Your task to perform on an android device: turn on sleep mode Image 0: 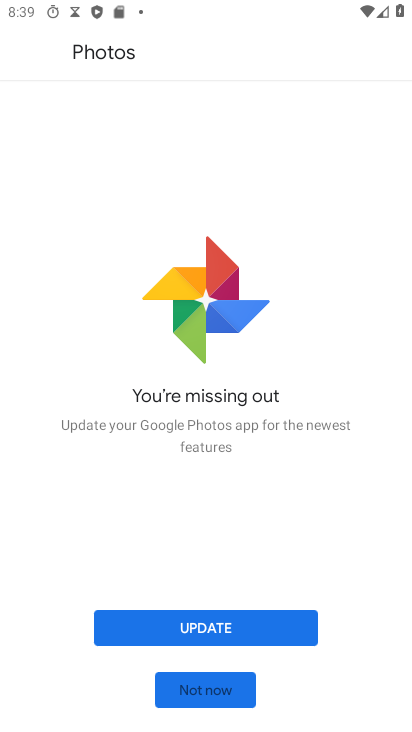
Step 0: press home button
Your task to perform on an android device: turn on sleep mode Image 1: 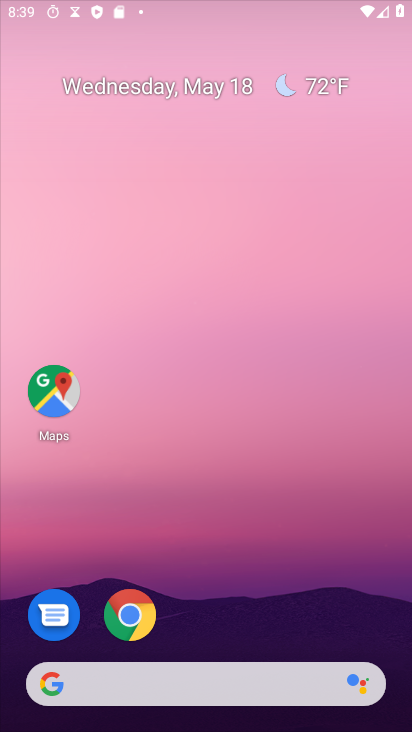
Step 1: drag from (327, 614) to (330, 120)
Your task to perform on an android device: turn on sleep mode Image 2: 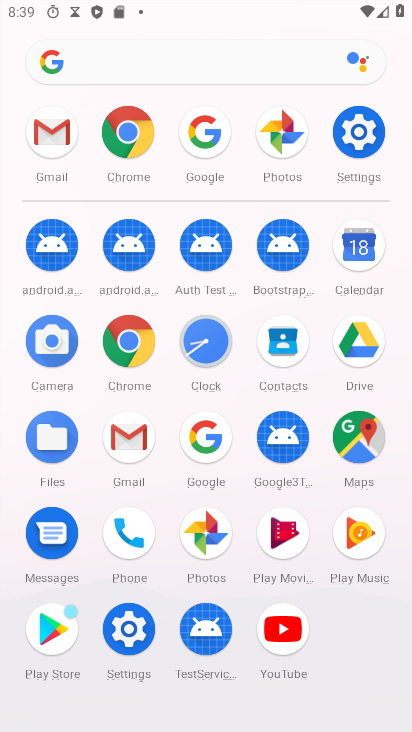
Step 2: click (348, 144)
Your task to perform on an android device: turn on sleep mode Image 3: 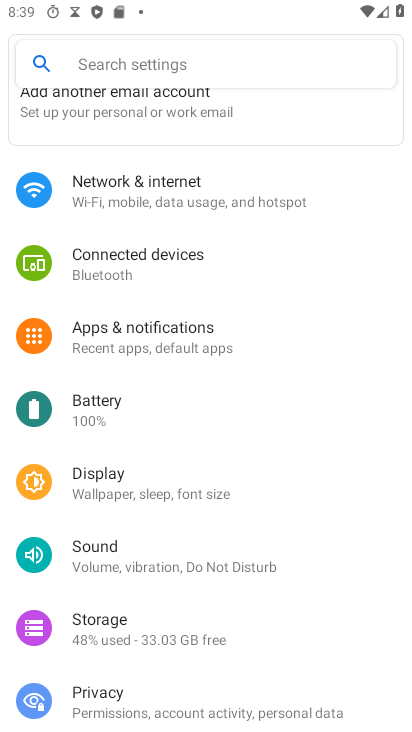
Step 3: click (140, 492)
Your task to perform on an android device: turn on sleep mode Image 4: 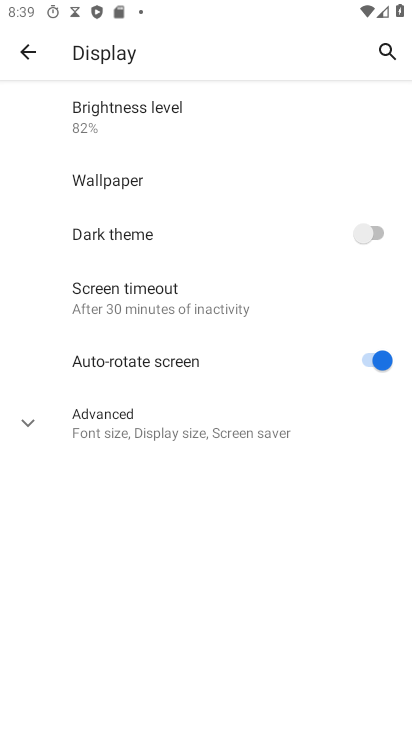
Step 4: click (120, 432)
Your task to perform on an android device: turn on sleep mode Image 5: 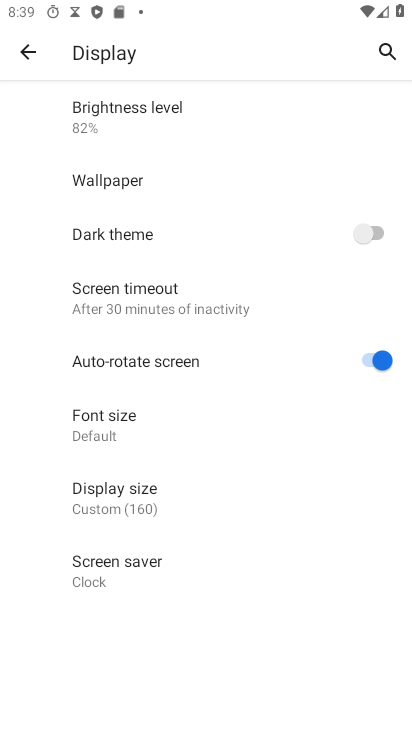
Step 5: task complete